Your task to perform on an android device: check android version Image 0: 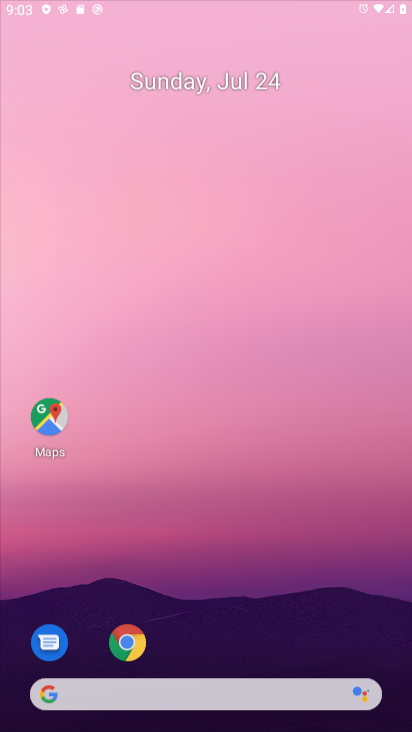
Step 0: click (240, 211)
Your task to perform on an android device: check android version Image 1: 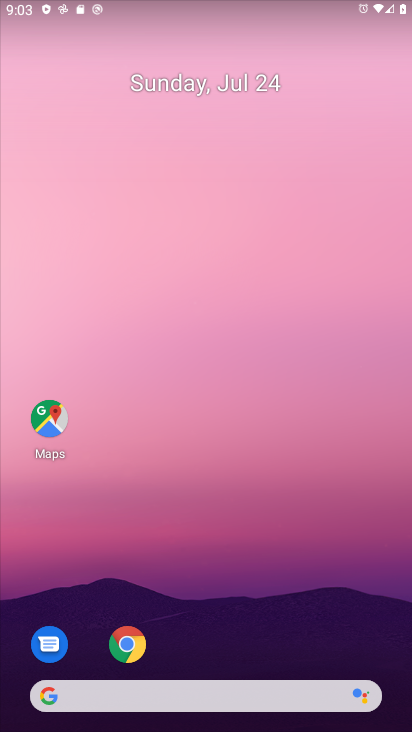
Step 1: drag from (258, 532) to (202, 96)
Your task to perform on an android device: check android version Image 2: 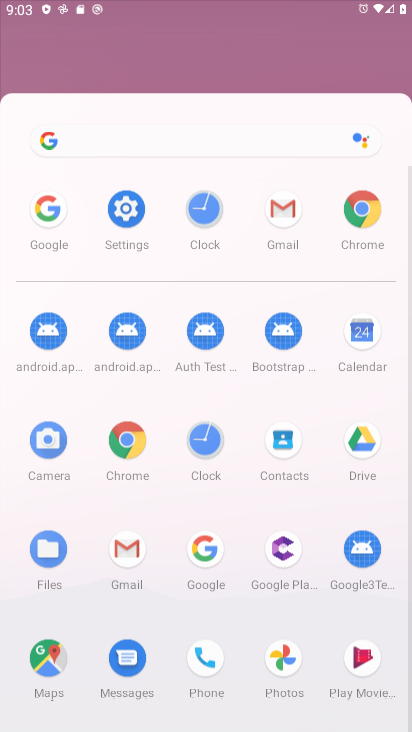
Step 2: drag from (203, 533) to (190, 247)
Your task to perform on an android device: check android version Image 3: 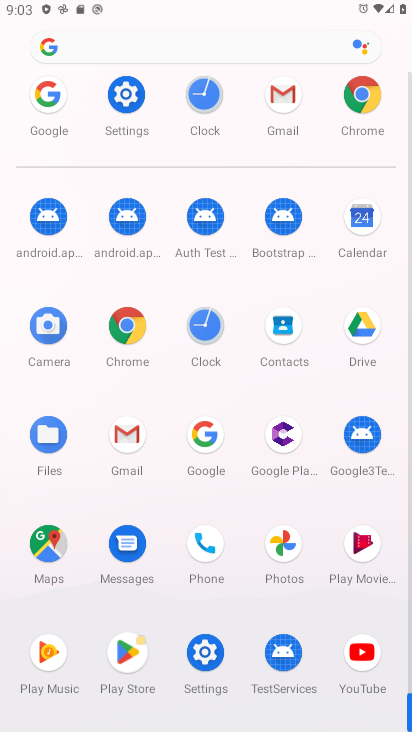
Step 3: drag from (191, 522) to (227, 135)
Your task to perform on an android device: check android version Image 4: 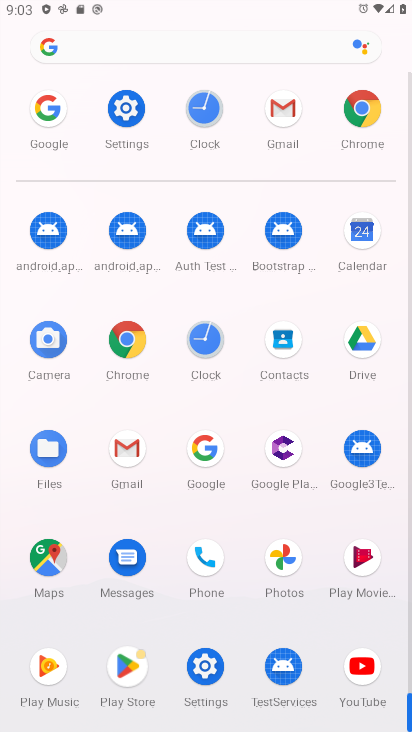
Step 4: click (201, 444)
Your task to perform on an android device: check android version Image 5: 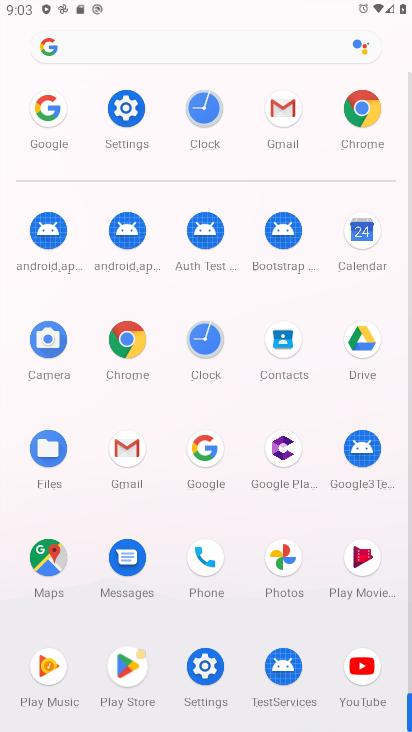
Step 5: click (206, 448)
Your task to perform on an android device: check android version Image 6: 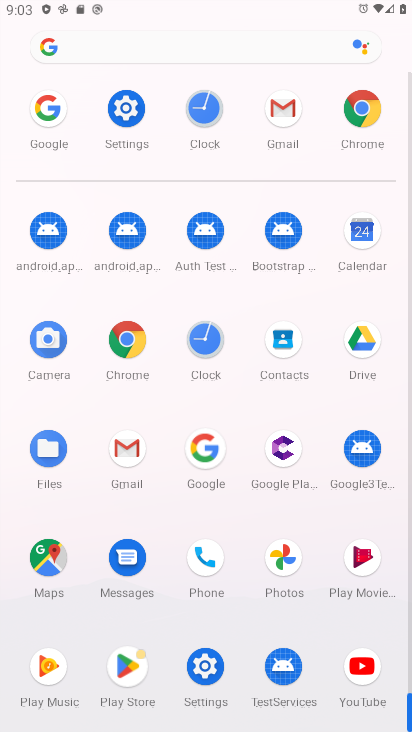
Step 6: click (206, 448)
Your task to perform on an android device: check android version Image 7: 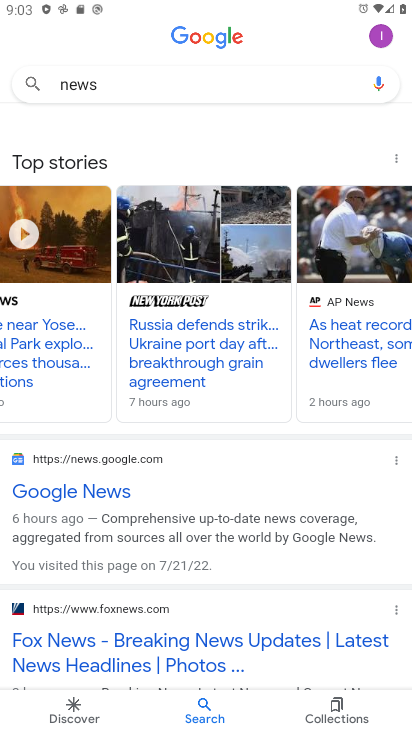
Step 7: click (206, 444)
Your task to perform on an android device: check android version Image 8: 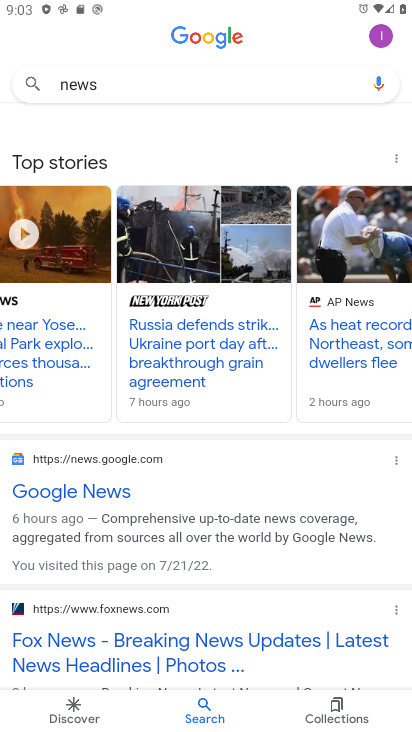
Step 8: click (206, 440)
Your task to perform on an android device: check android version Image 9: 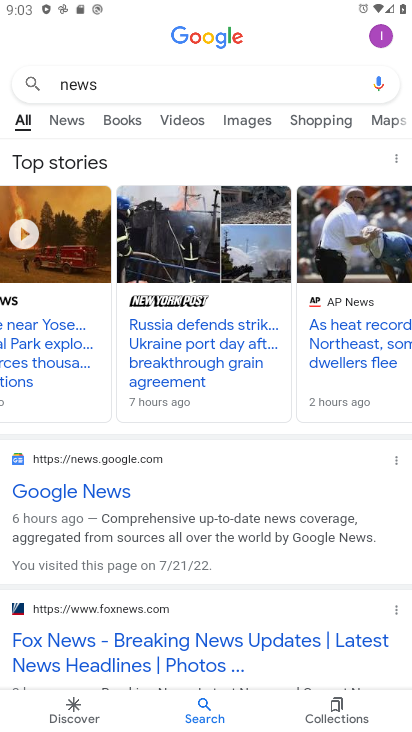
Step 9: click (380, 43)
Your task to perform on an android device: check android version Image 10: 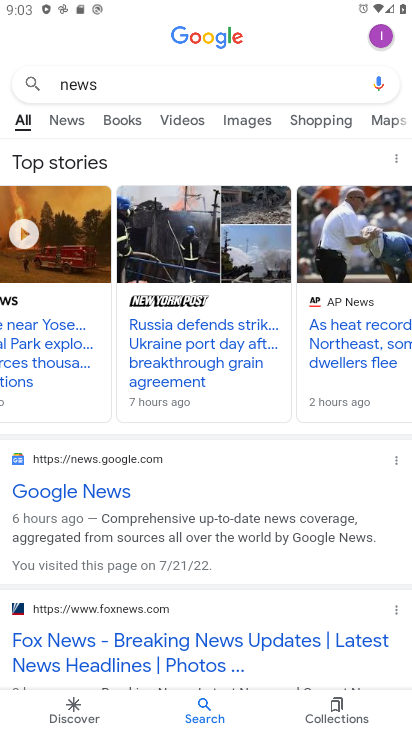
Step 10: click (379, 42)
Your task to perform on an android device: check android version Image 11: 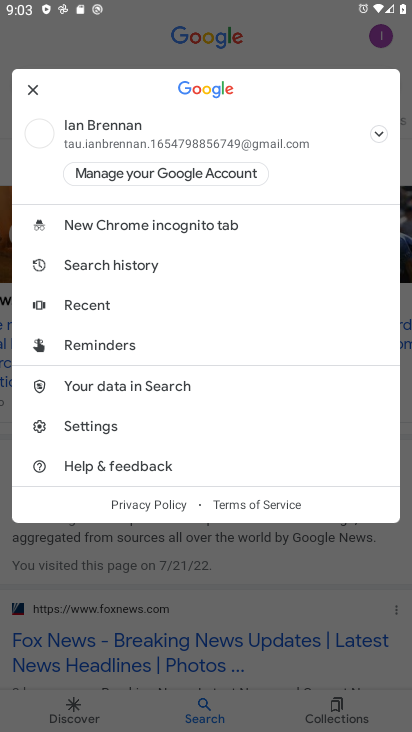
Step 11: click (377, 39)
Your task to perform on an android device: check android version Image 12: 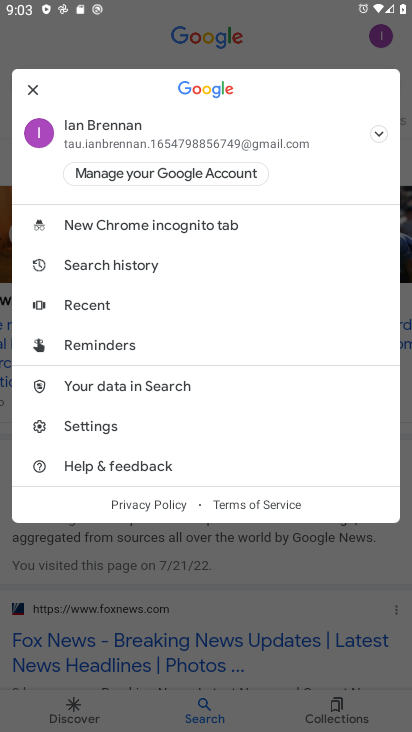
Step 12: click (92, 428)
Your task to perform on an android device: check android version Image 13: 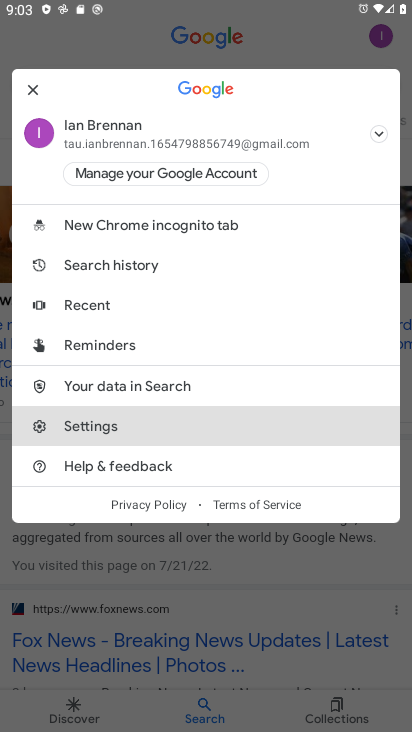
Step 13: click (91, 428)
Your task to perform on an android device: check android version Image 14: 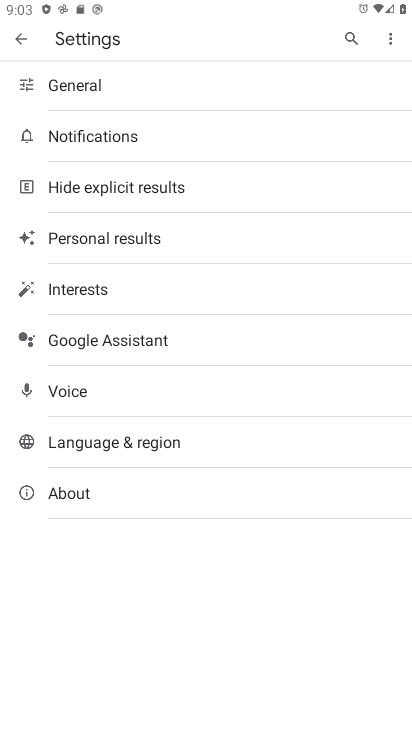
Step 14: click (93, 488)
Your task to perform on an android device: check android version Image 15: 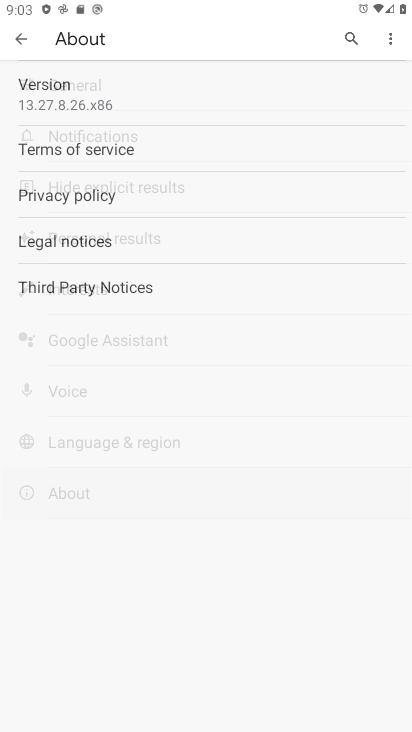
Step 15: click (92, 487)
Your task to perform on an android device: check android version Image 16: 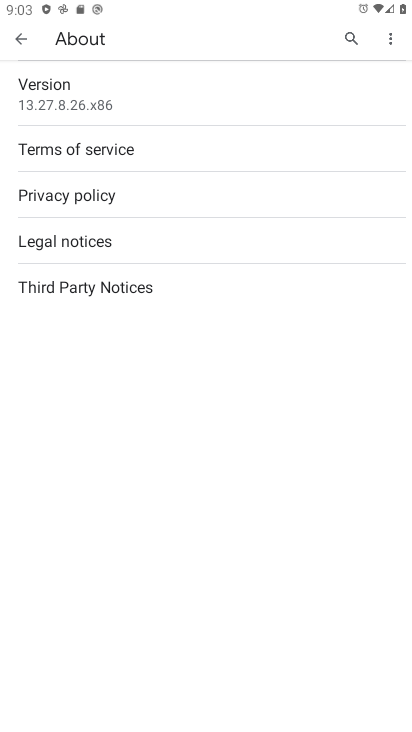
Step 16: click (66, 93)
Your task to perform on an android device: check android version Image 17: 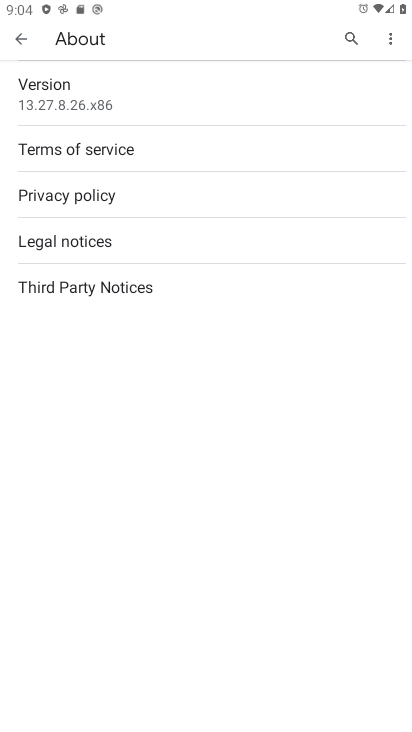
Step 17: click (234, 103)
Your task to perform on an android device: check android version Image 18: 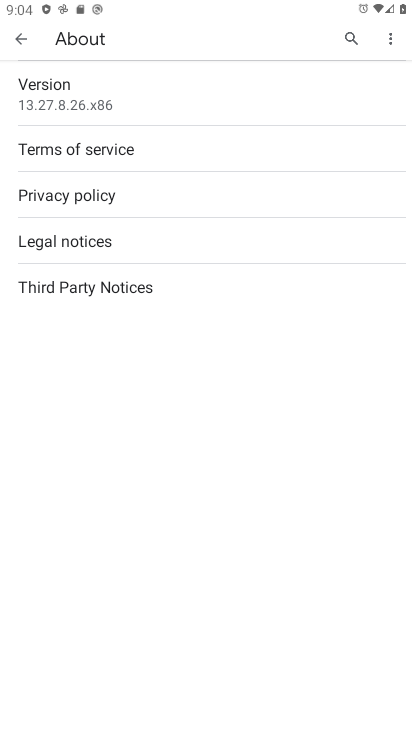
Step 18: task complete